Your task to perform on an android device: refresh tabs in the chrome app Image 0: 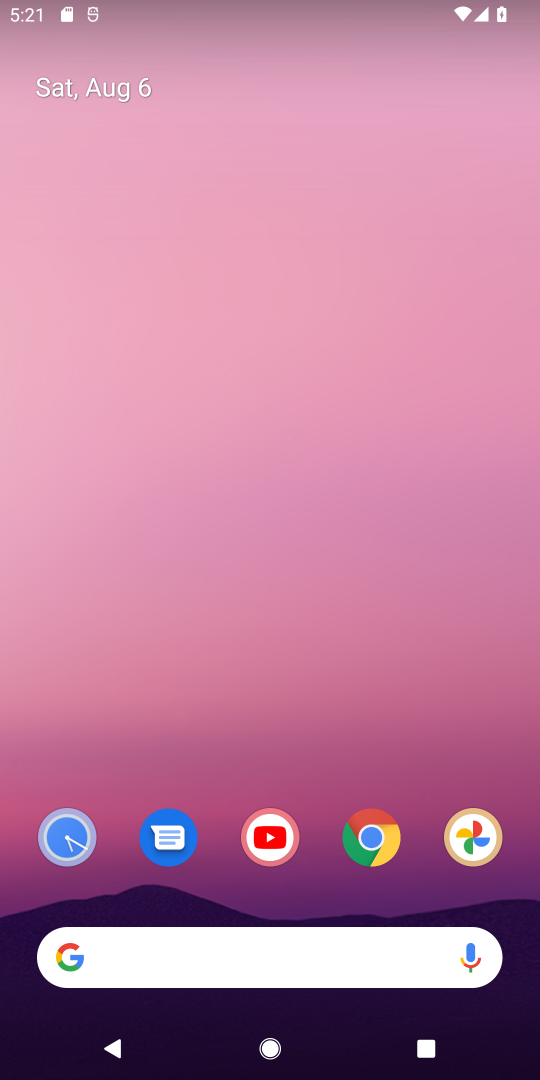
Step 0: click (374, 829)
Your task to perform on an android device: refresh tabs in the chrome app Image 1: 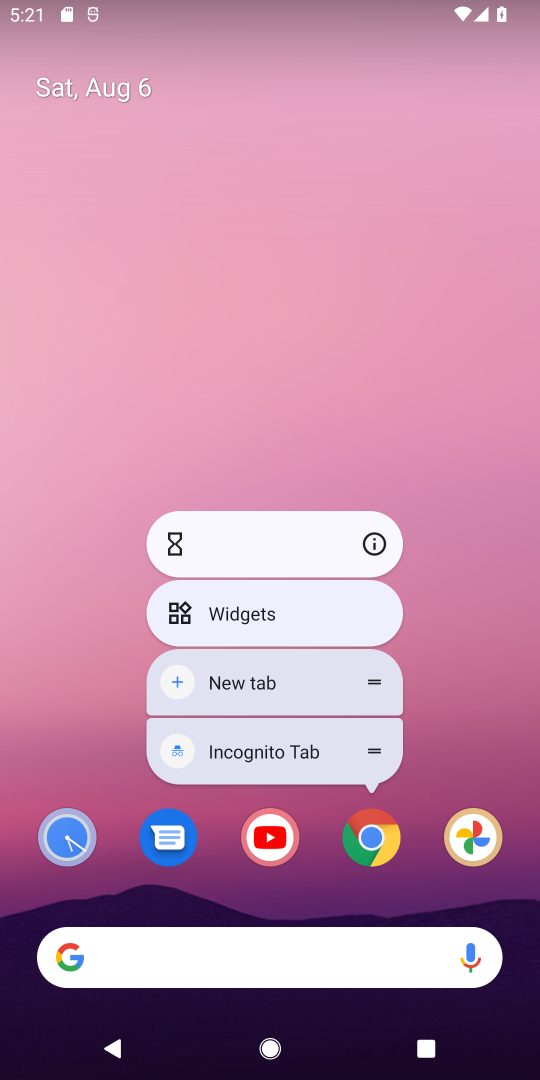
Step 1: click (398, 843)
Your task to perform on an android device: refresh tabs in the chrome app Image 2: 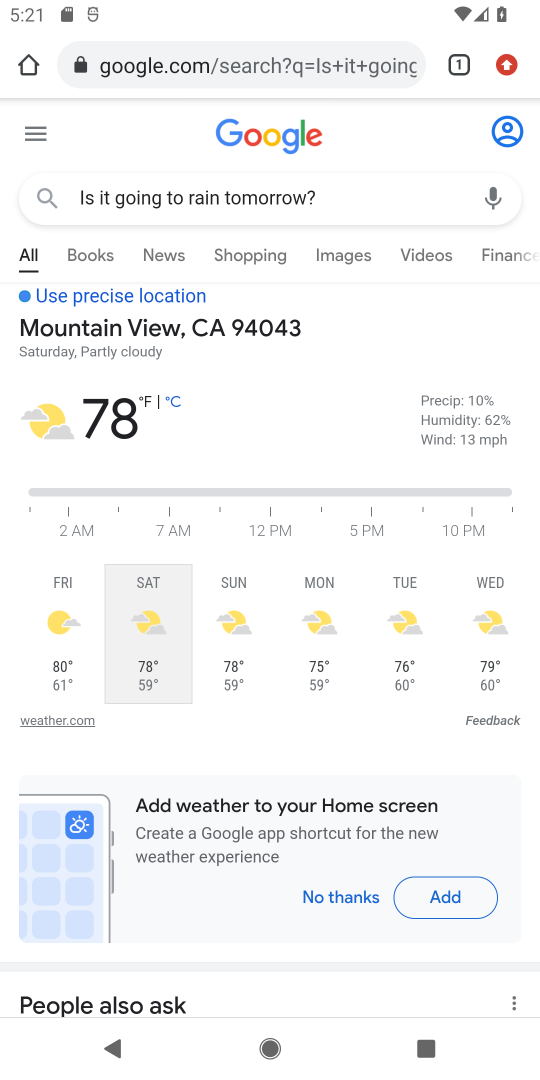
Step 2: task complete